Your task to perform on an android device: Open Amazon Image 0: 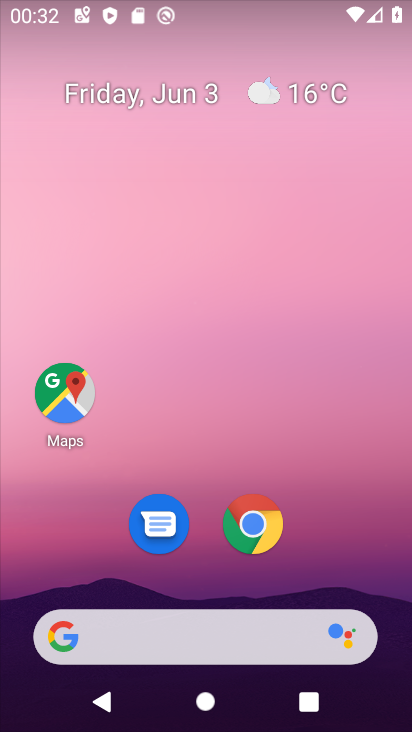
Step 0: click (264, 519)
Your task to perform on an android device: Open Amazon Image 1: 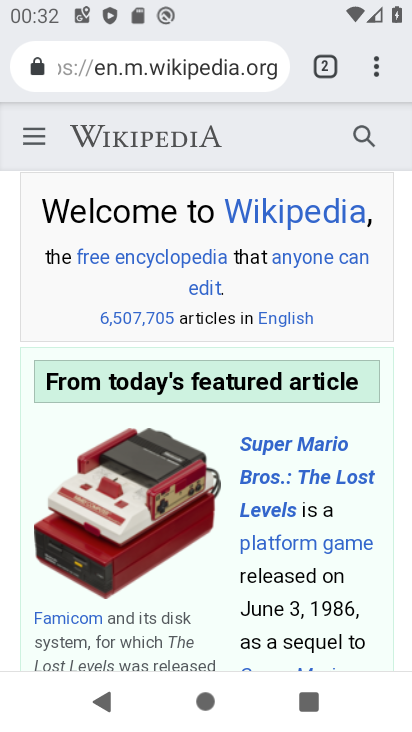
Step 1: click (372, 64)
Your task to perform on an android device: Open Amazon Image 2: 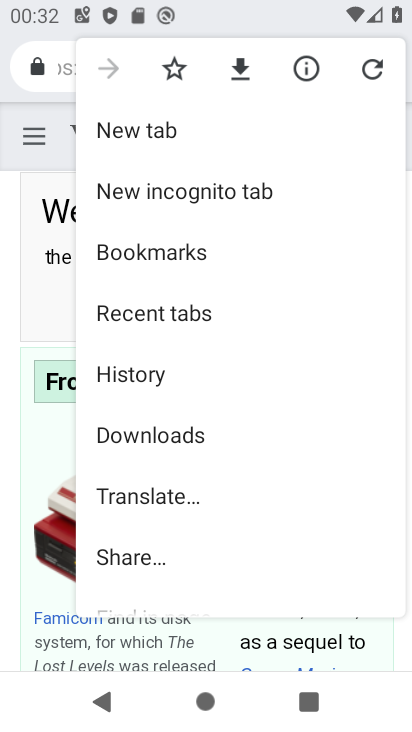
Step 2: click (258, 119)
Your task to perform on an android device: Open Amazon Image 3: 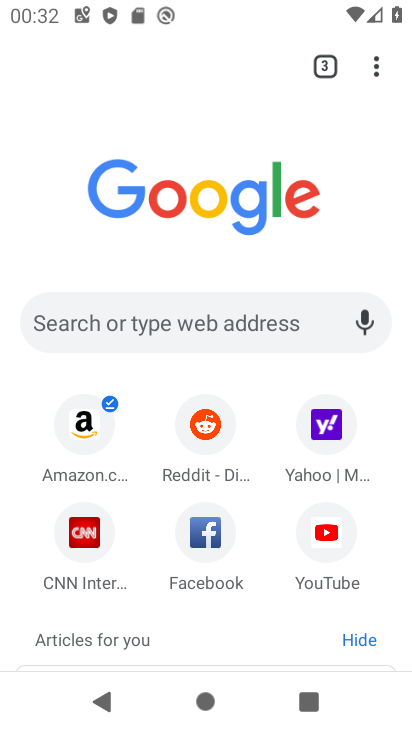
Step 3: click (85, 418)
Your task to perform on an android device: Open Amazon Image 4: 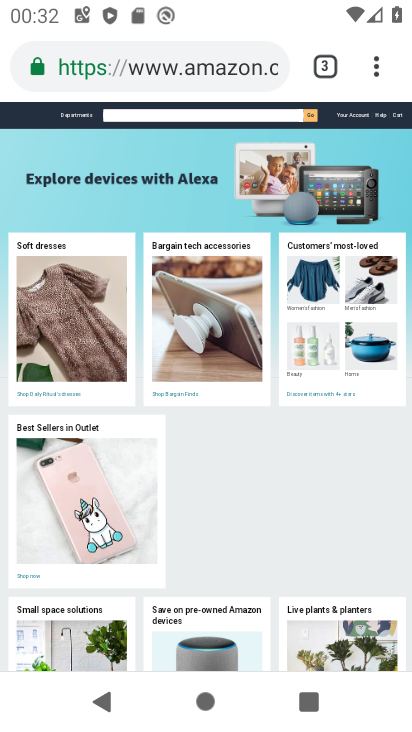
Step 4: click (327, 65)
Your task to perform on an android device: Open Amazon Image 5: 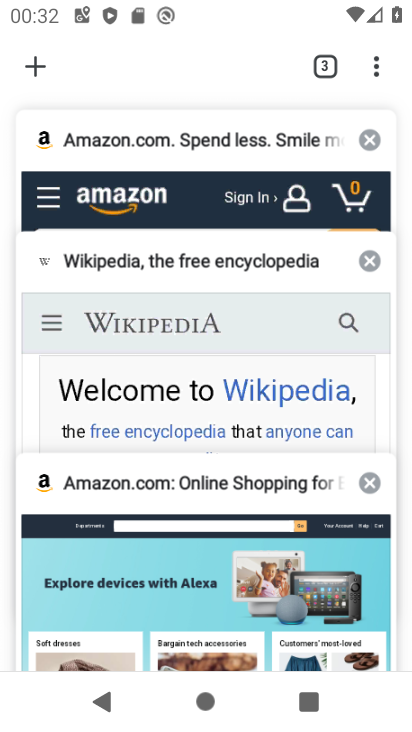
Step 5: click (248, 195)
Your task to perform on an android device: Open Amazon Image 6: 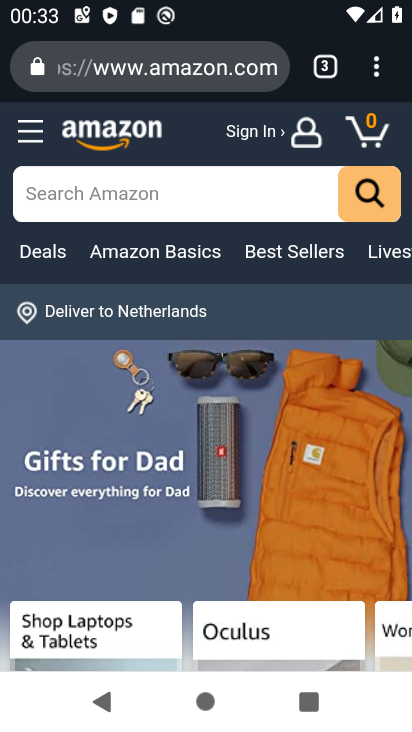
Step 6: task complete